Your task to perform on an android device: Check the weather Image 0: 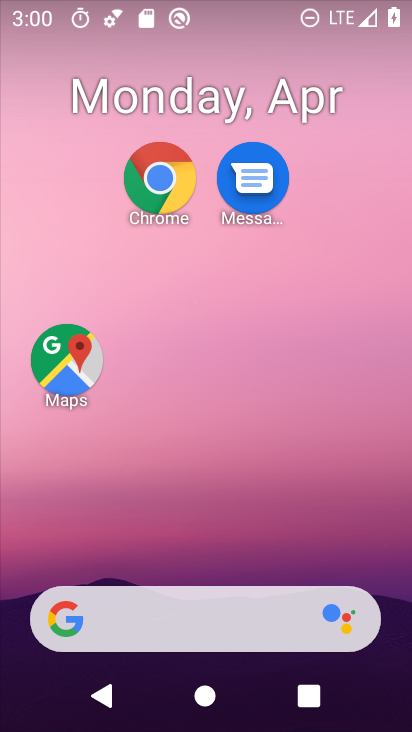
Step 0: drag from (313, 599) to (301, 19)
Your task to perform on an android device: Check the weather Image 1: 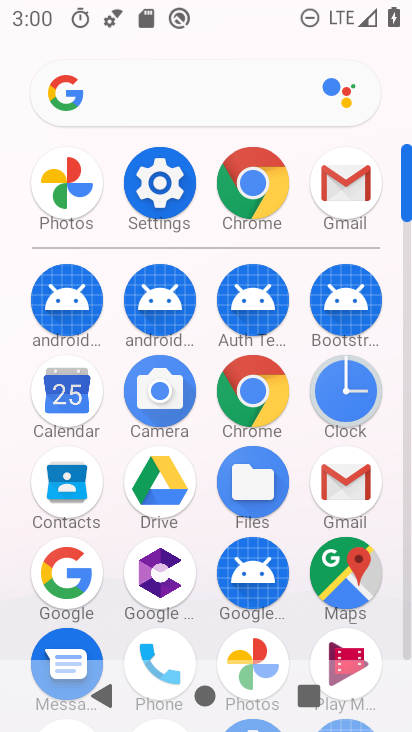
Step 1: click (254, 400)
Your task to perform on an android device: Check the weather Image 2: 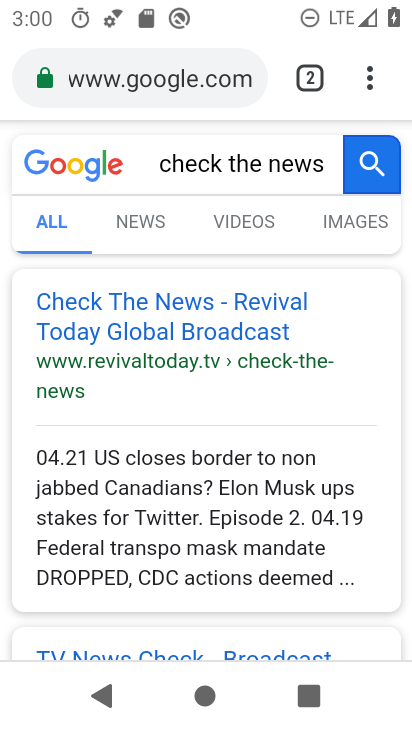
Step 2: click (256, 92)
Your task to perform on an android device: Check the weather Image 3: 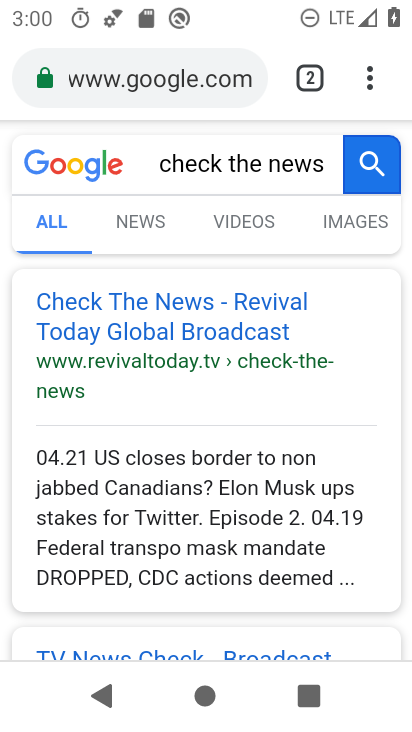
Step 3: click (233, 85)
Your task to perform on an android device: Check the weather Image 4: 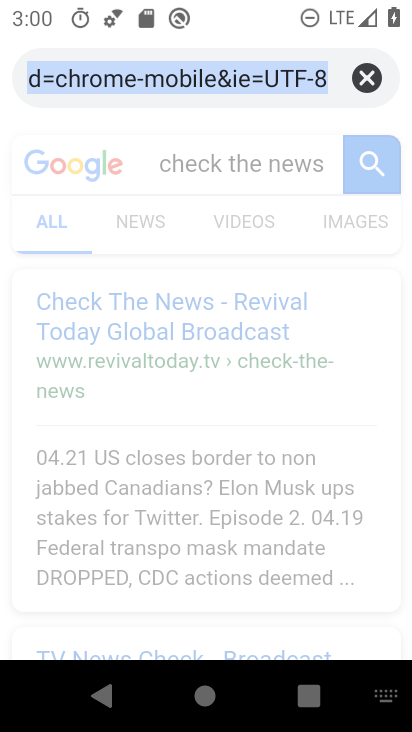
Step 4: click (364, 77)
Your task to perform on an android device: Check the weather Image 5: 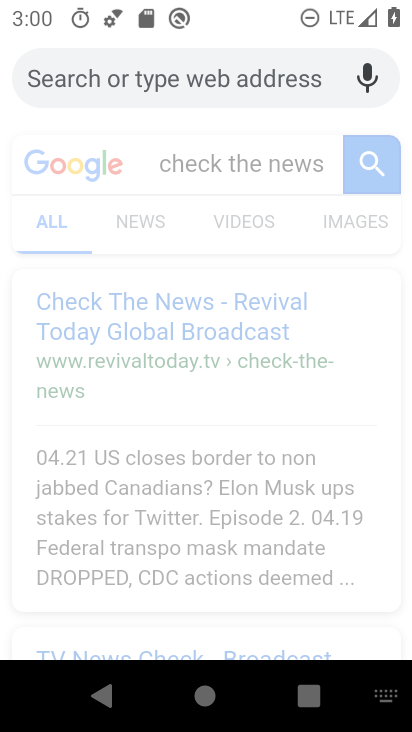
Step 5: type "check the weather"
Your task to perform on an android device: Check the weather Image 6: 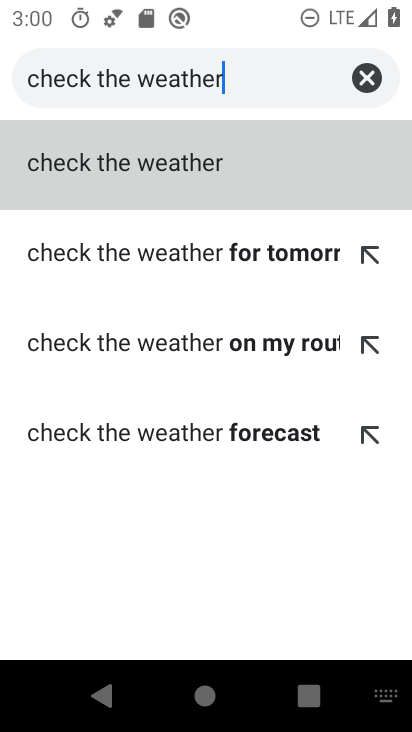
Step 6: click (199, 185)
Your task to perform on an android device: Check the weather Image 7: 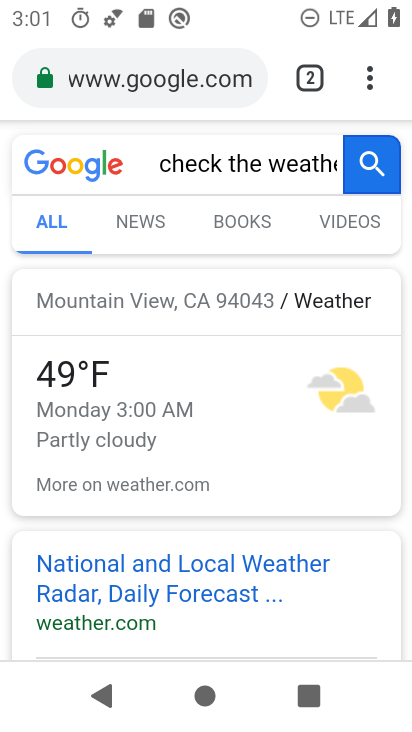
Step 7: task complete